Your task to perform on an android device: refresh tabs in the chrome app Image 0: 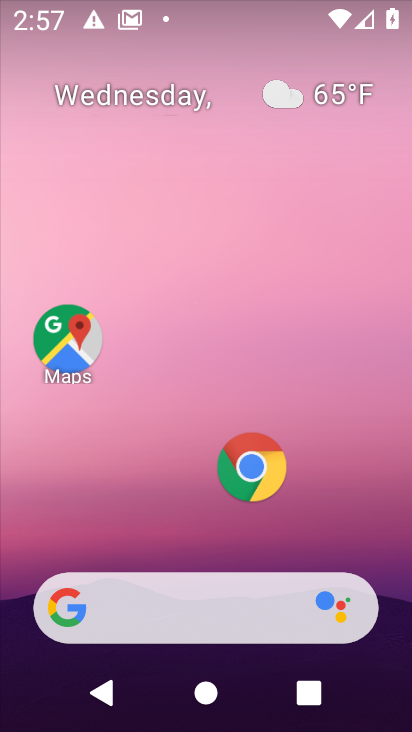
Step 0: click (276, 473)
Your task to perform on an android device: refresh tabs in the chrome app Image 1: 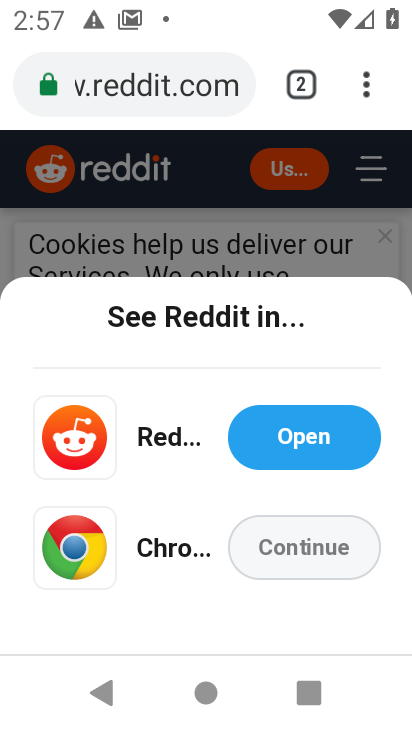
Step 1: task complete